Your task to perform on an android device: Search for flights from Tokyo to NYC Image 0: 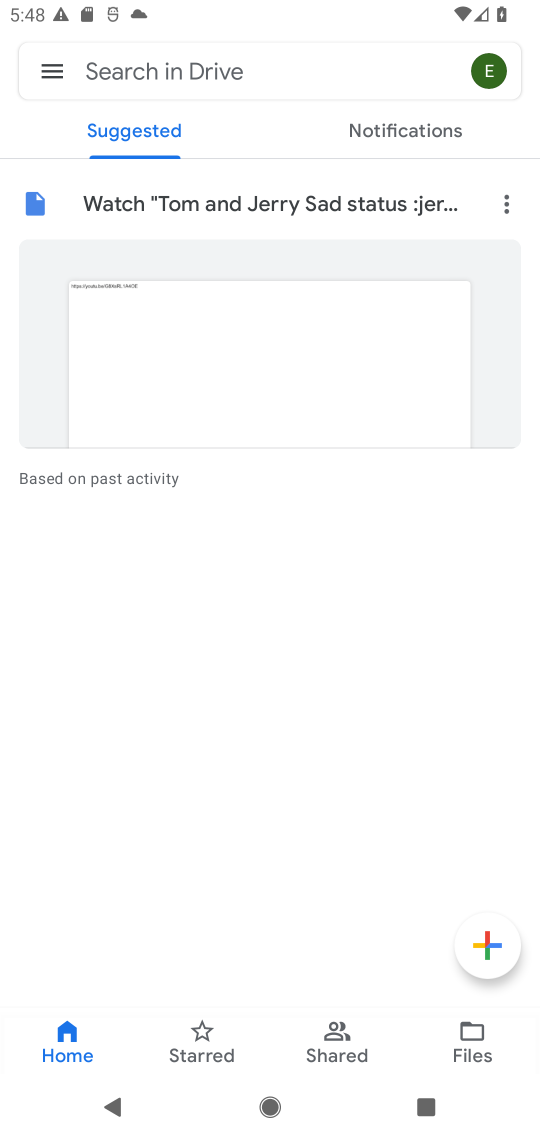
Step 0: press home button
Your task to perform on an android device: Search for flights from Tokyo to NYC Image 1: 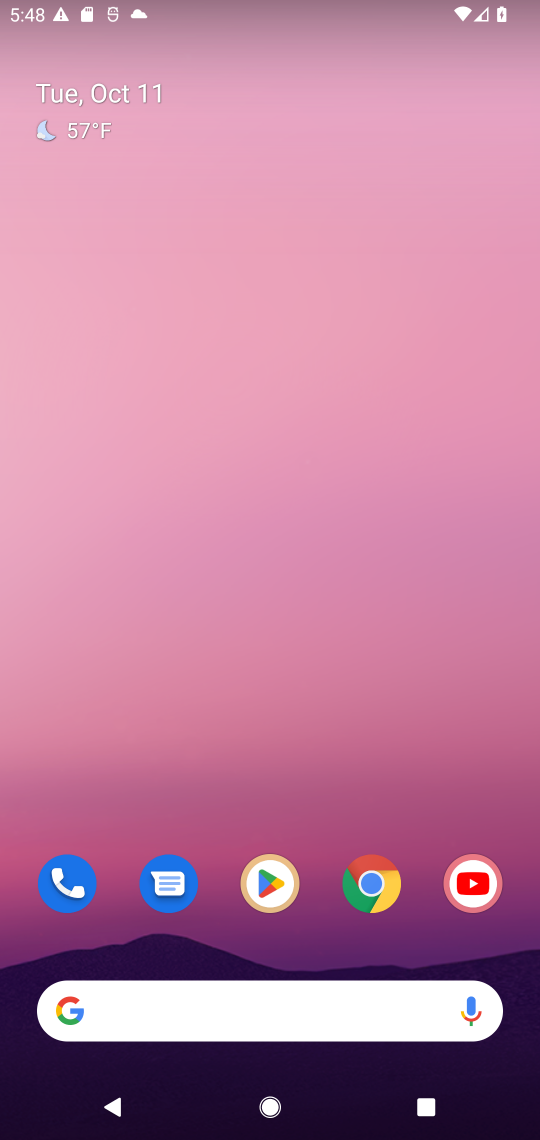
Step 1: drag from (317, 977) to (286, 184)
Your task to perform on an android device: Search for flights from Tokyo to NYC Image 2: 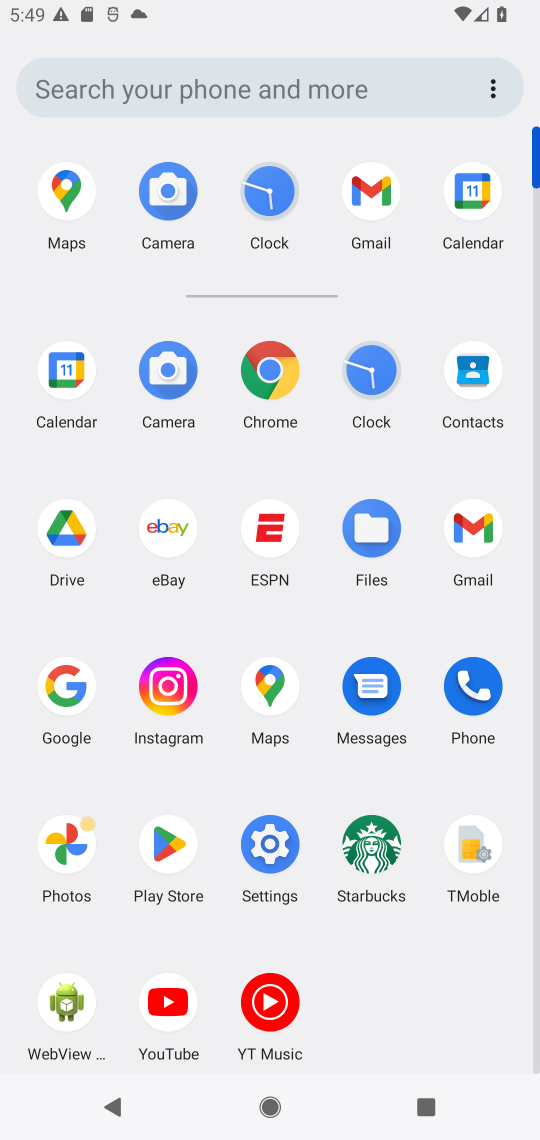
Step 2: click (277, 372)
Your task to perform on an android device: Search for flights from Tokyo to NYC Image 3: 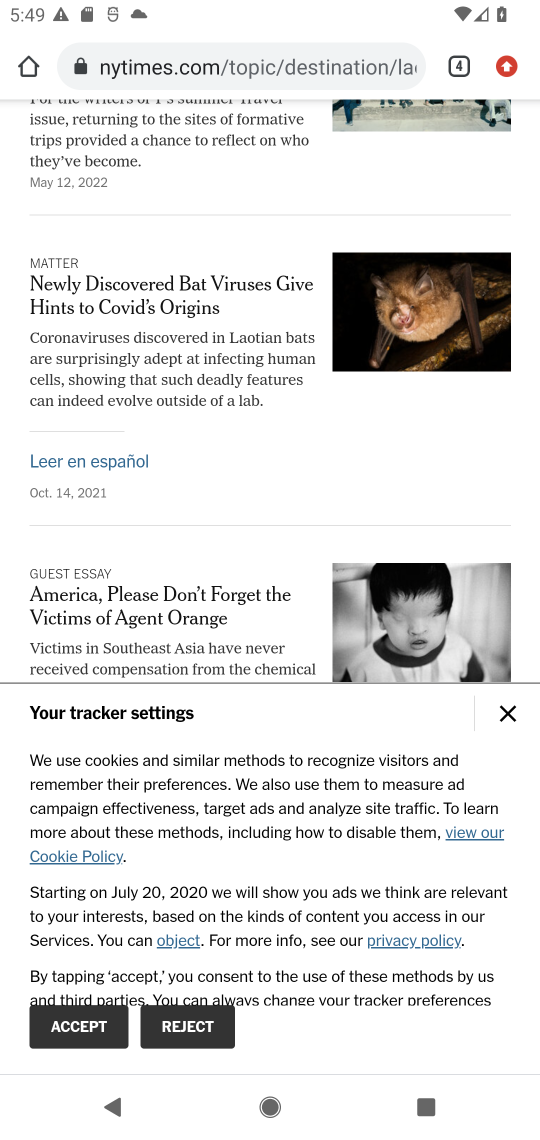
Step 3: click (238, 60)
Your task to perform on an android device: Search for flights from Tokyo to NYC Image 4: 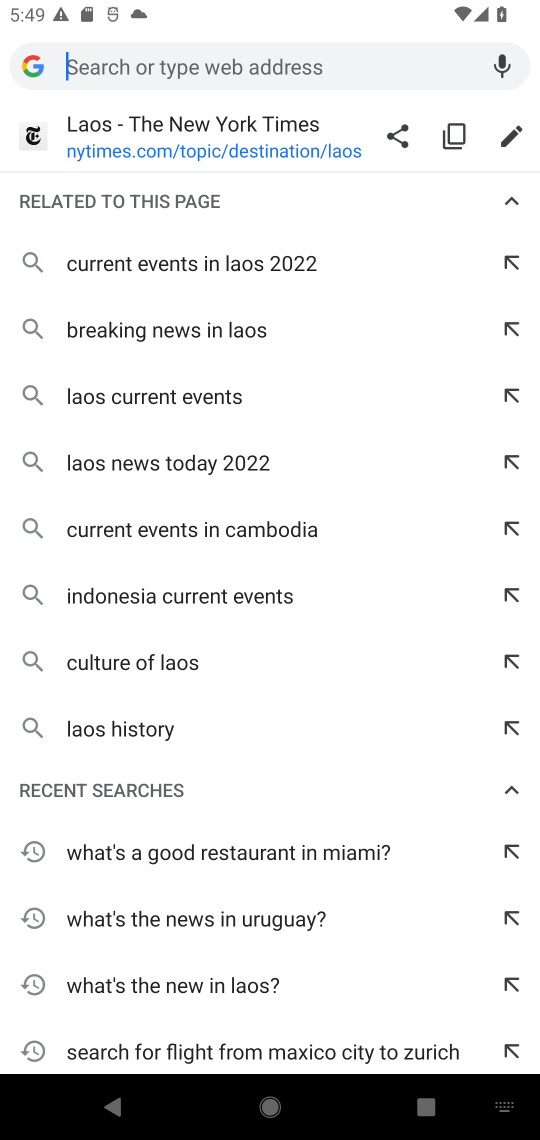
Step 4: type "flights from Tokyo to NYC"
Your task to perform on an android device: Search for flights from Tokyo to NYC Image 5: 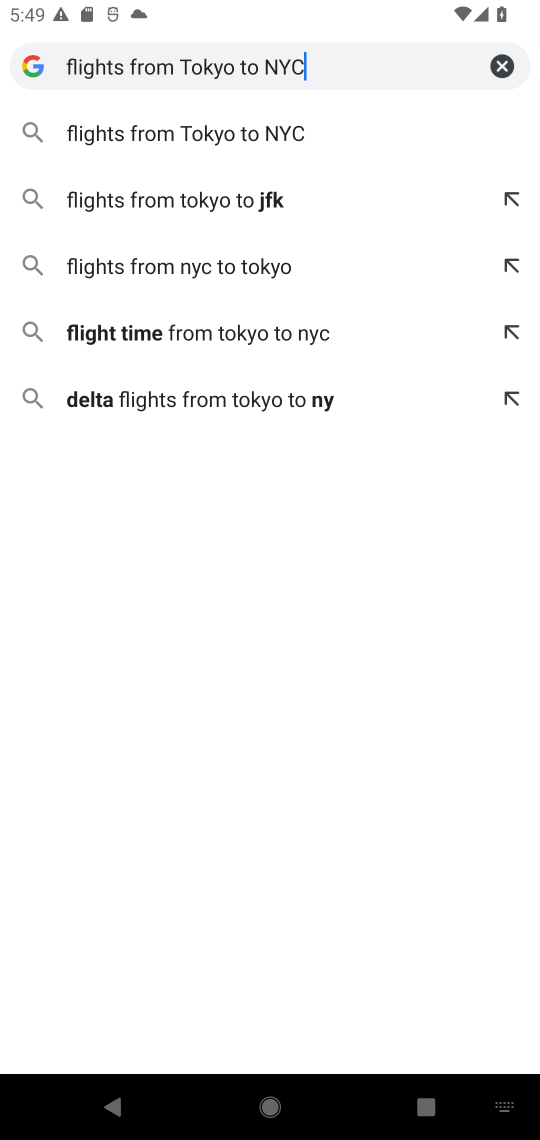
Step 5: press enter
Your task to perform on an android device: Search for flights from Tokyo to NYC Image 6: 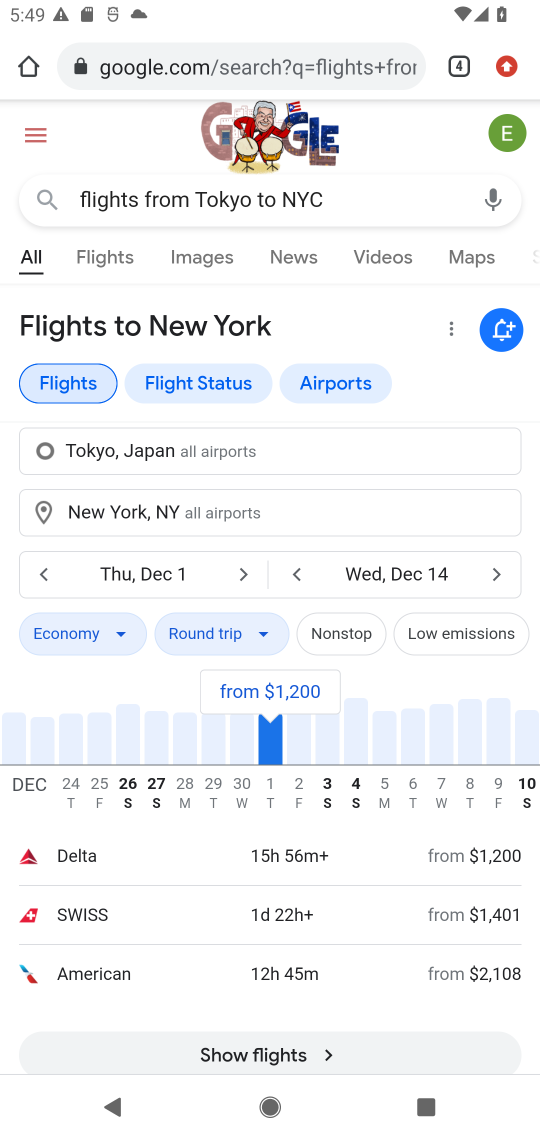
Step 6: task complete